Your task to perform on an android device: stop showing notifications on the lock screen Image 0: 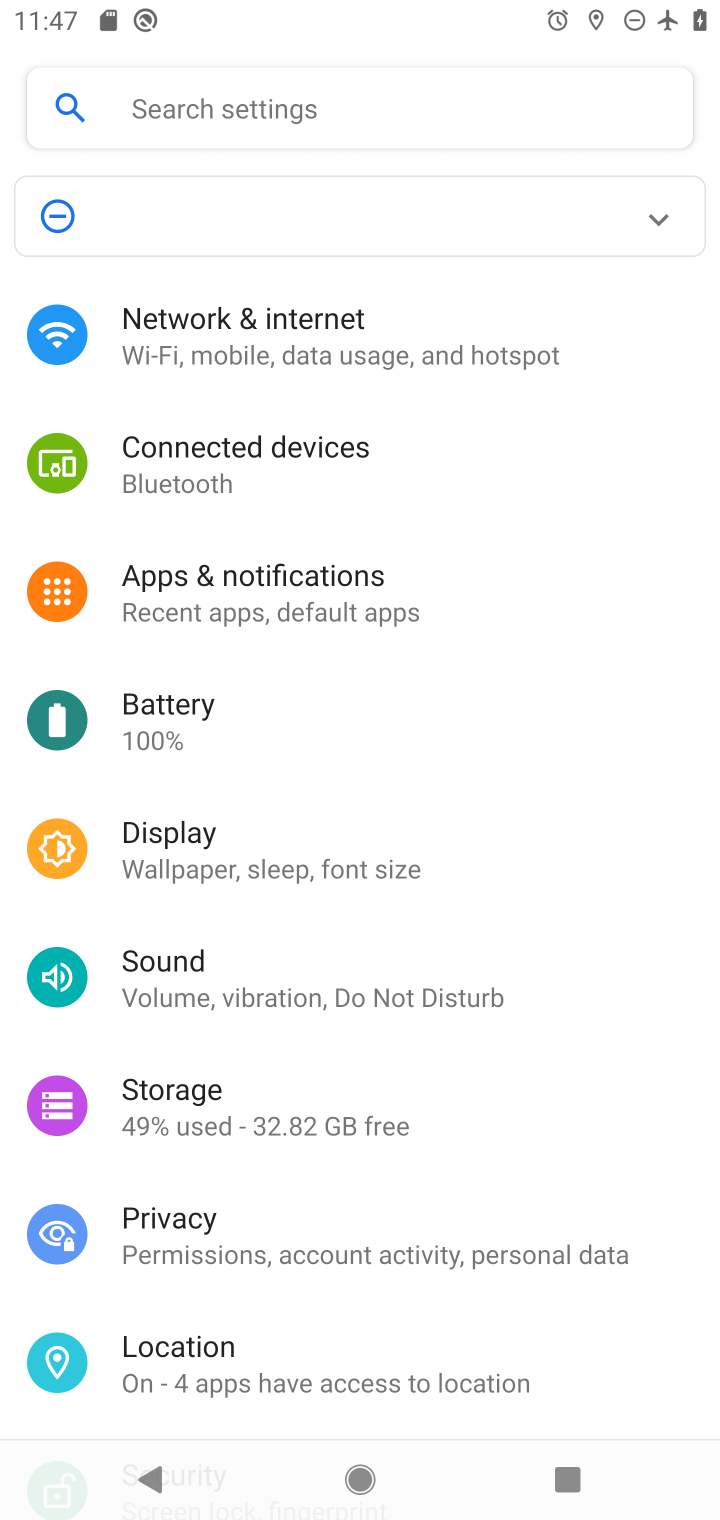
Step 0: drag from (453, 1327) to (444, 274)
Your task to perform on an android device: stop showing notifications on the lock screen Image 1: 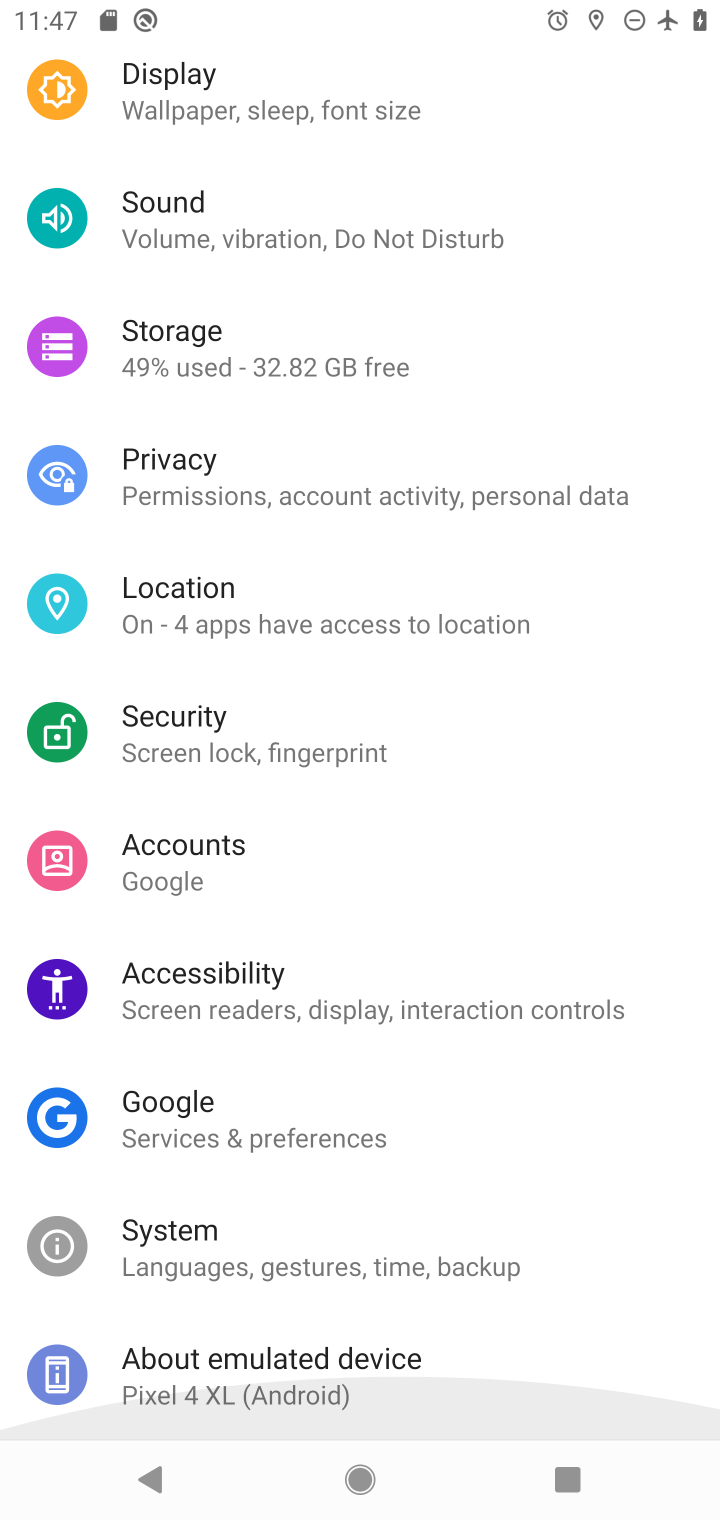
Step 1: drag from (440, 274) to (433, 1098)
Your task to perform on an android device: stop showing notifications on the lock screen Image 2: 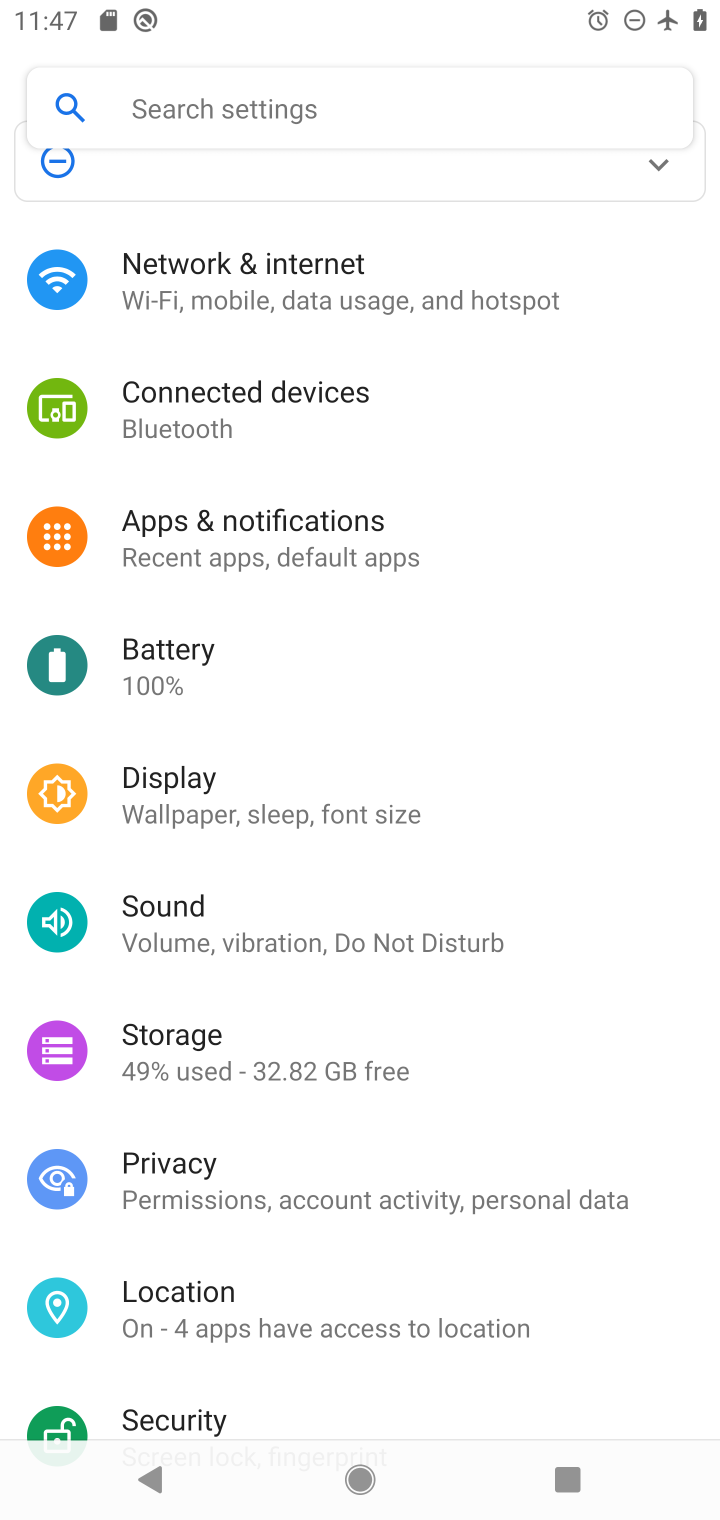
Step 2: click (335, 531)
Your task to perform on an android device: stop showing notifications on the lock screen Image 3: 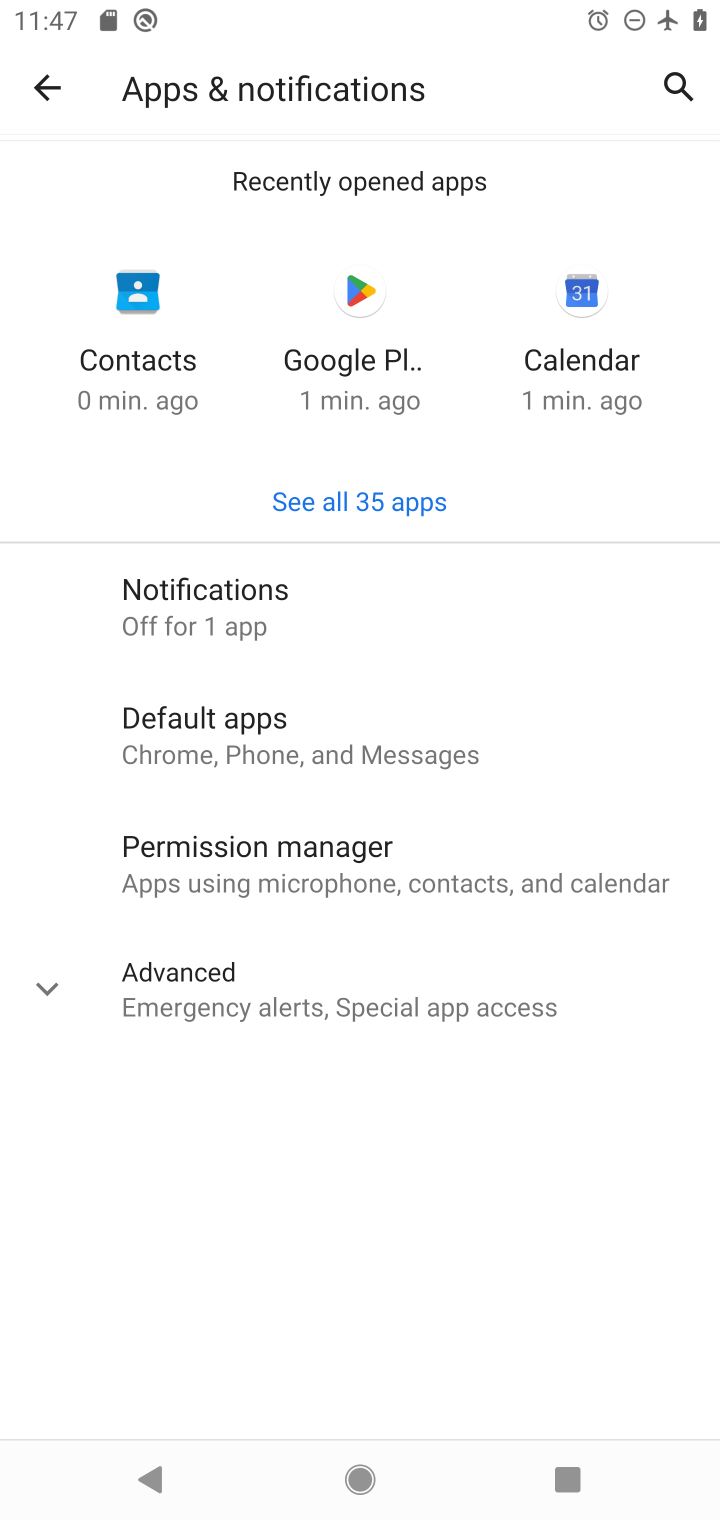
Step 3: click (259, 969)
Your task to perform on an android device: stop showing notifications on the lock screen Image 4: 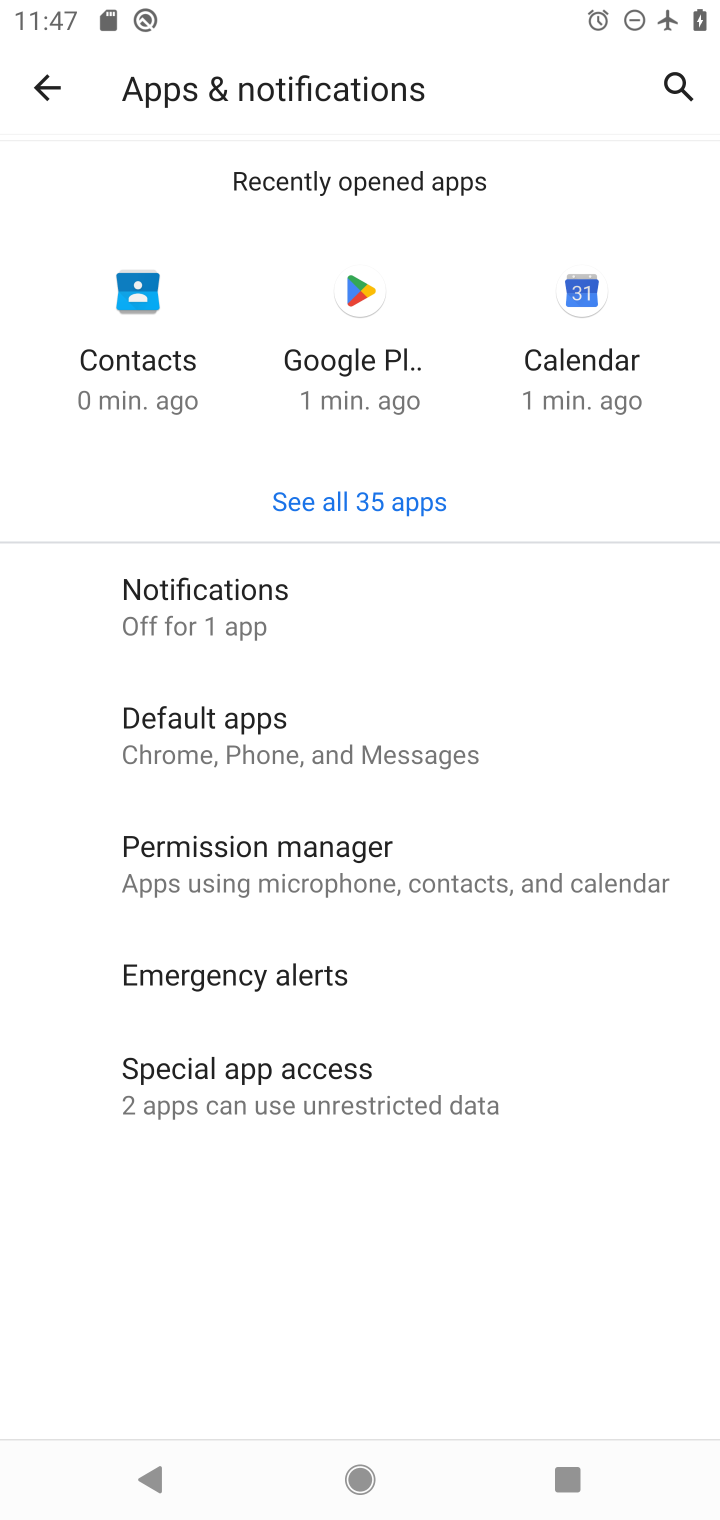
Step 4: click (270, 625)
Your task to perform on an android device: stop showing notifications on the lock screen Image 5: 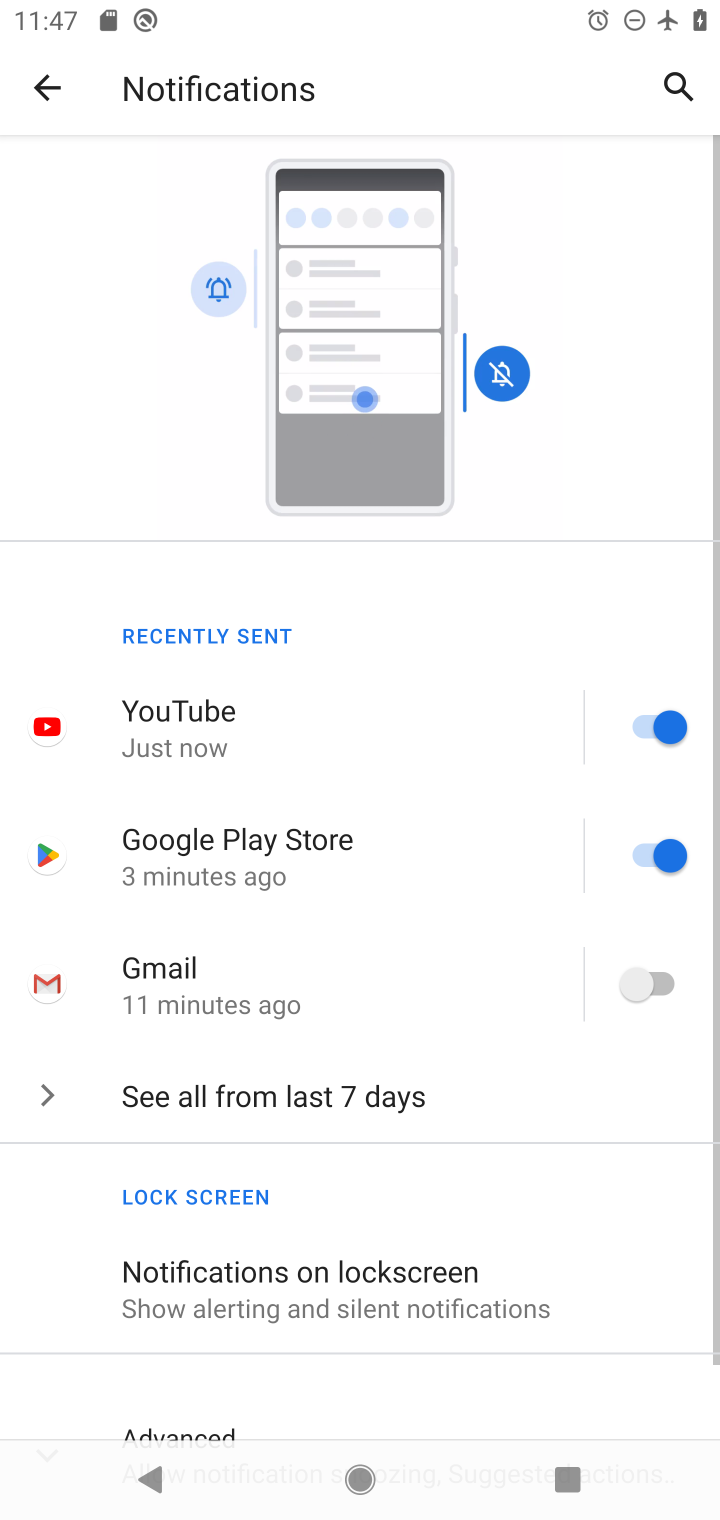
Step 5: click (432, 1320)
Your task to perform on an android device: stop showing notifications on the lock screen Image 6: 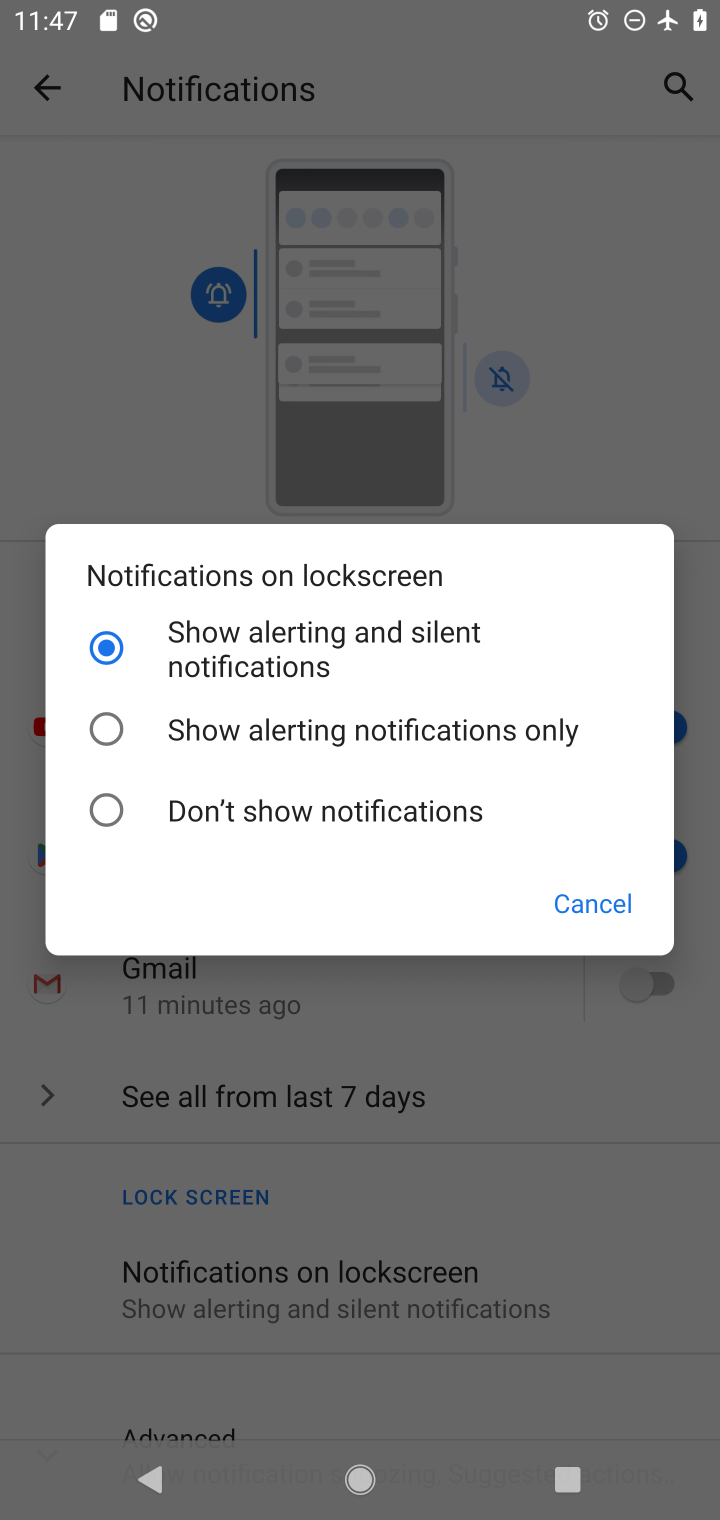
Step 6: click (227, 810)
Your task to perform on an android device: stop showing notifications on the lock screen Image 7: 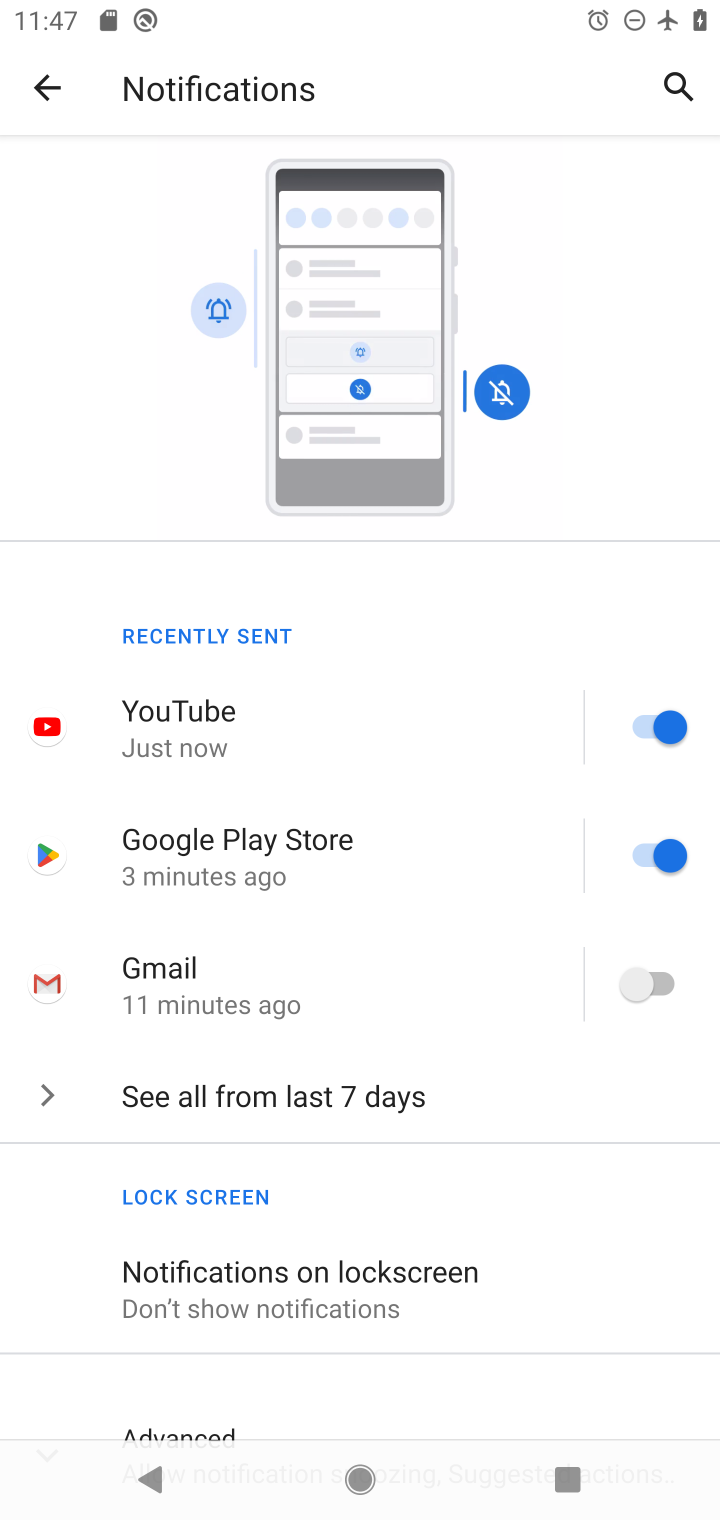
Step 7: task complete